Your task to perform on an android device: create a new album in the google photos Image 0: 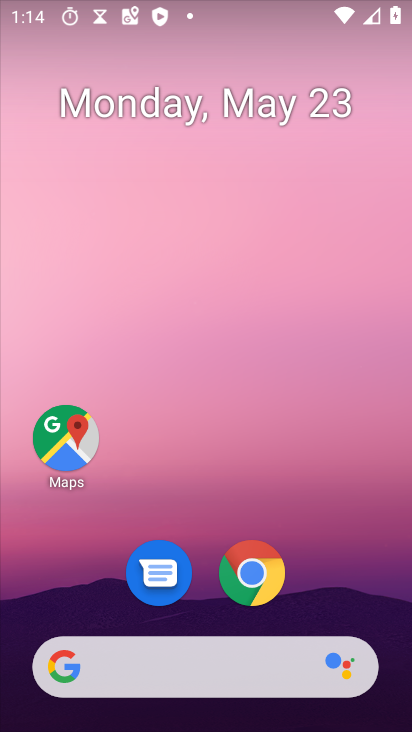
Step 0: press home button
Your task to perform on an android device: create a new album in the google photos Image 1: 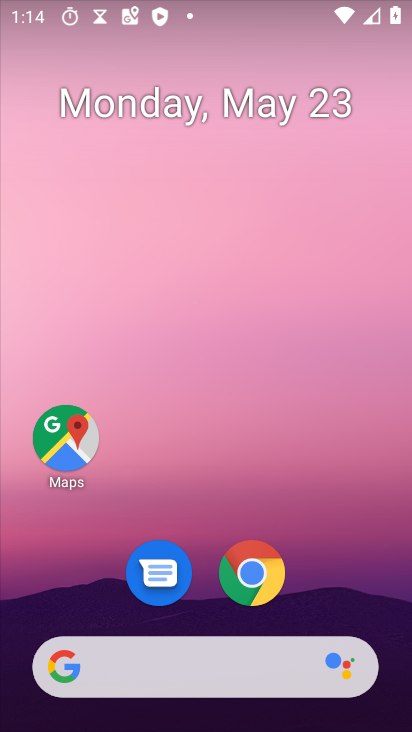
Step 1: drag from (163, 680) to (312, 232)
Your task to perform on an android device: create a new album in the google photos Image 2: 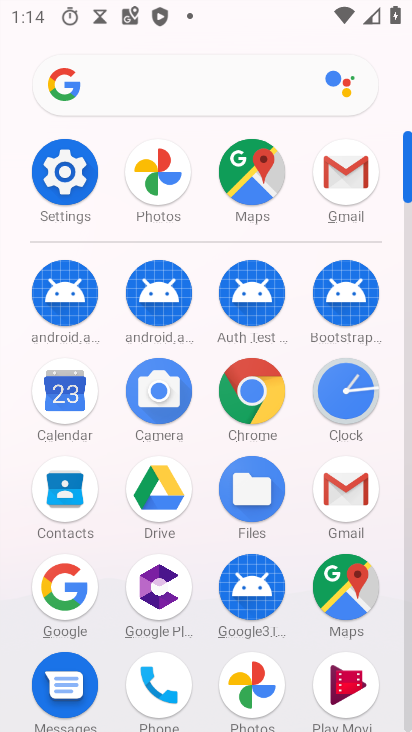
Step 2: click (262, 677)
Your task to perform on an android device: create a new album in the google photos Image 3: 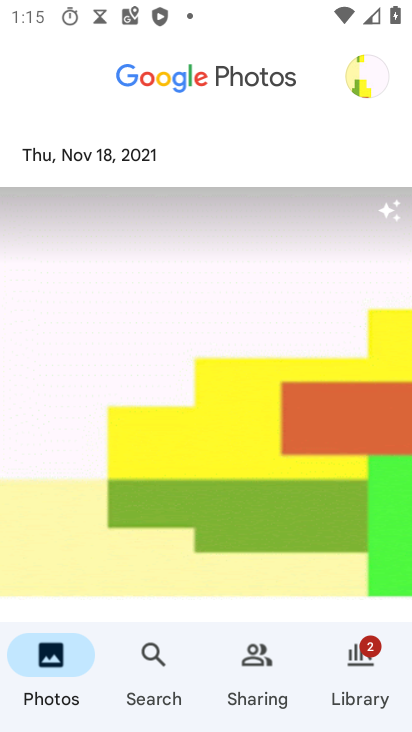
Step 3: click (363, 702)
Your task to perform on an android device: create a new album in the google photos Image 4: 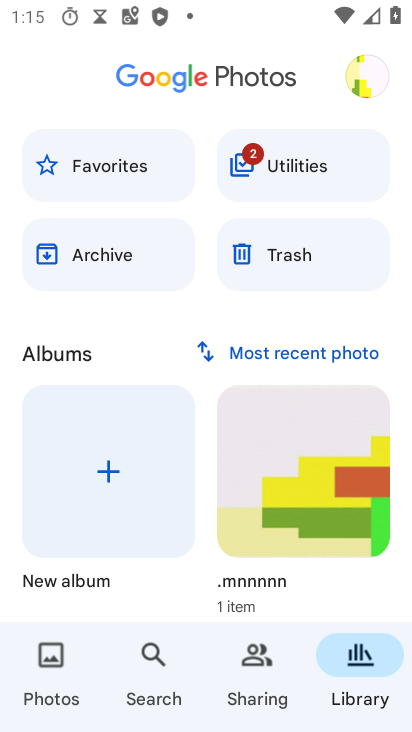
Step 4: click (117, 468)
Your task to perform on an android device: create a new album in the google photos Image 5: 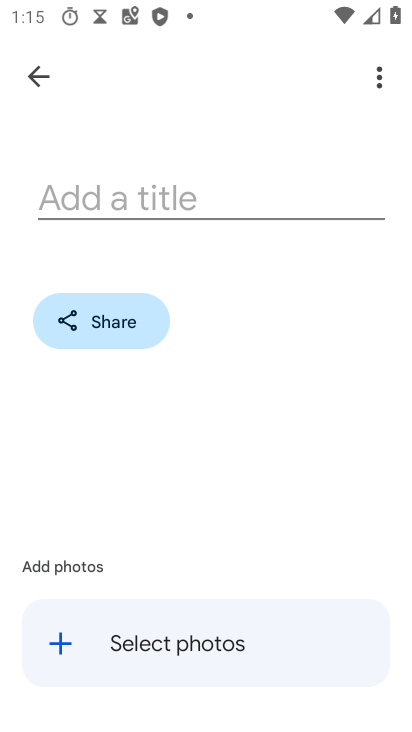
Step 5: drag from (183, 529) to (331, 102)
Your task to perform on an android device: create a new album in the google photos Image 6: 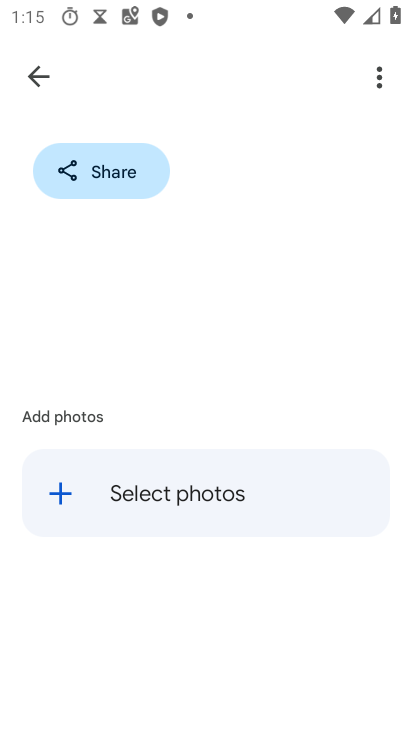
Step 6: click (151, 513)
Your task to perform on an android device: create a new album in the google photos Image 7: 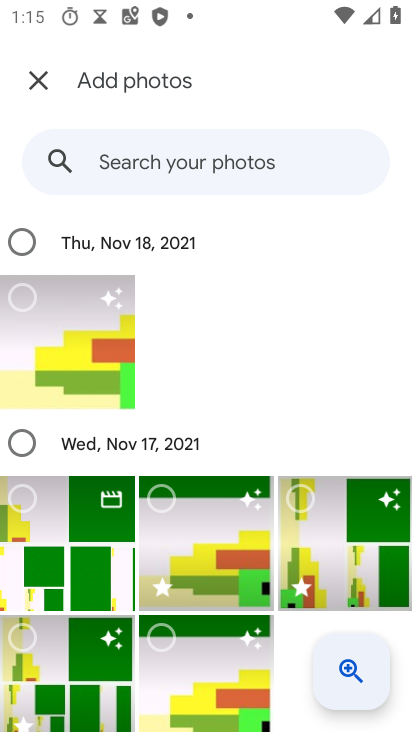
Step 7: click (89, 279)
Your task to perform on an android device: create a new album in the google photos Image 8: 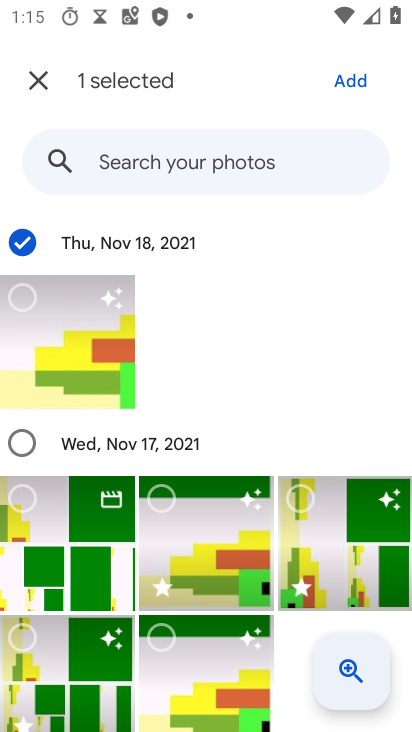
Step 8: click (46, 543)
Your task to perform on an android device: create a new album in the google photos Image 9: 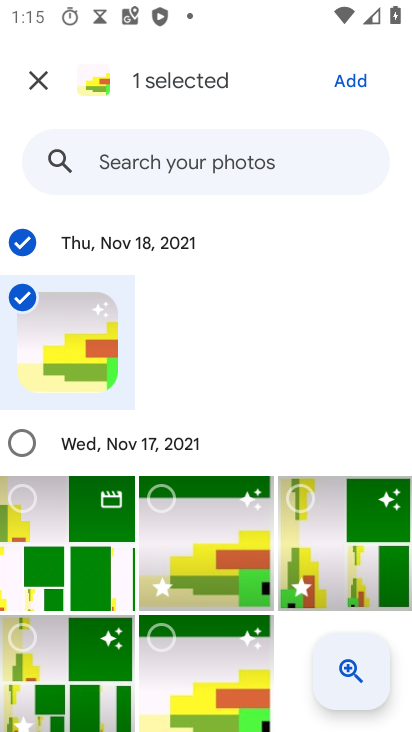
Step 9: click (217, 539)
Your task to perform on an android device: create a new album in the google photos Image 10: 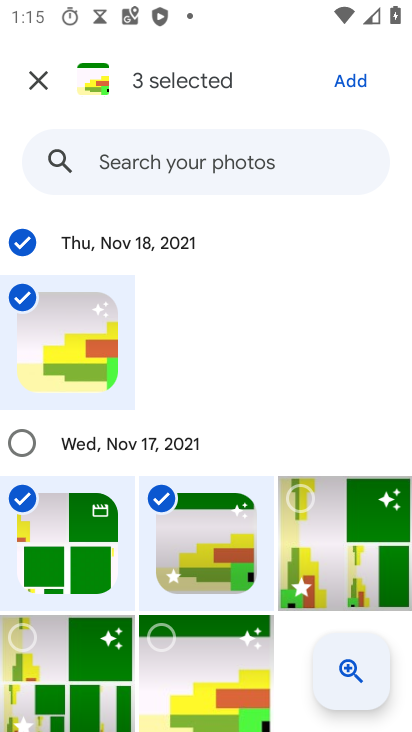
Step 10: click (312, 525)
Your task to perform on an android device: create a new album in the google photos Image 11: 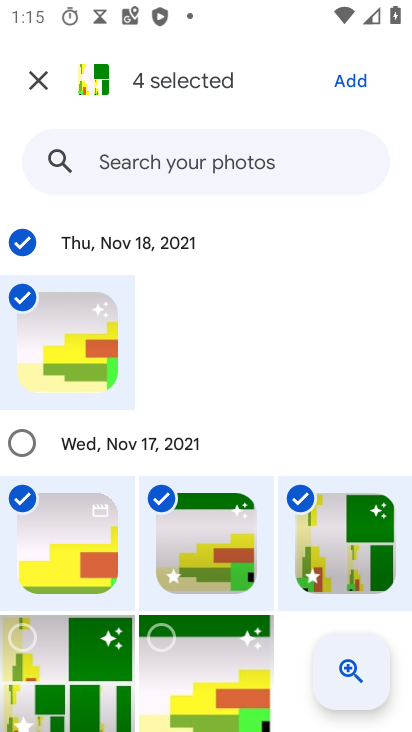
Step 11: click (366, 86)
Your task to perform on an android device: create a new album in the google photos Image 12: 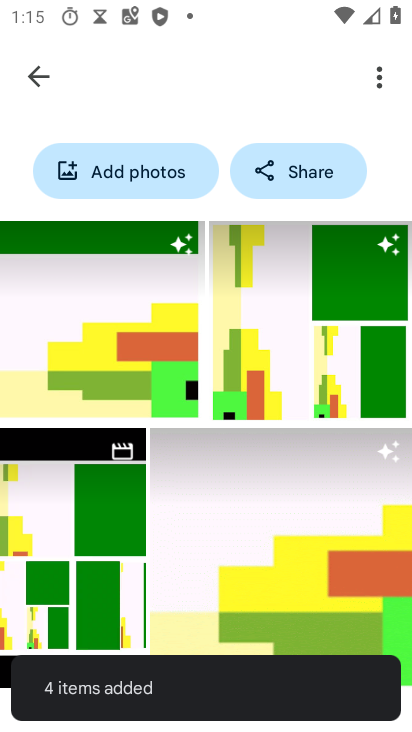
Step 12: task complete